Your task to perform on an android device: Open Chrome and go to settings Image 0: 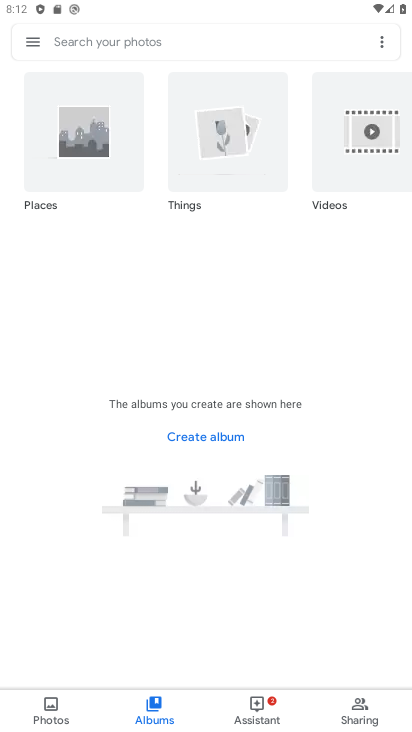
Step 0: press home button
Your task to perform on an android device: Open Chrome and go to settings Image 1: 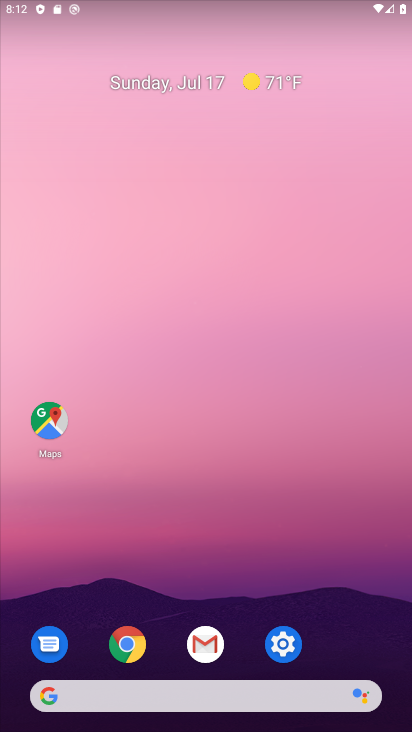
Step 1: click (131, 640)
Your task to perform on an android device: Open Chrome and go to settings Image 2: 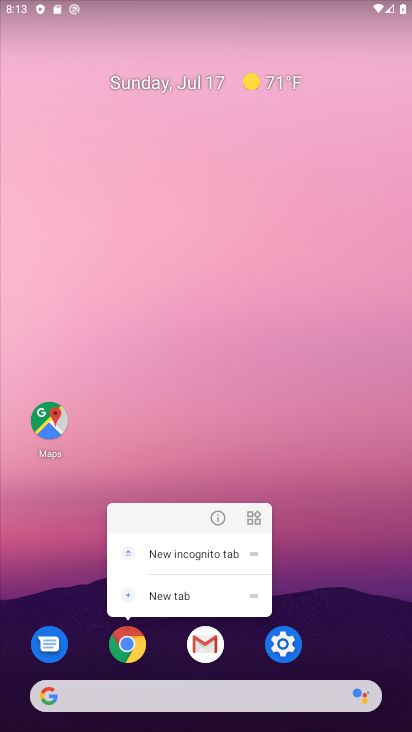
Step 2: click (133, 638)
Your task to perform on an android device: Open Chrome and go to settings Image 3: 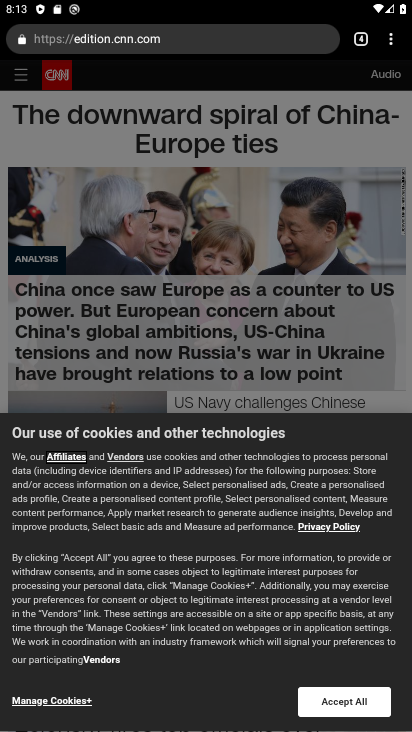
Step 3: click (387, 50)
Your task to perform on an android device: Open Chrome and go to settings Image 4: 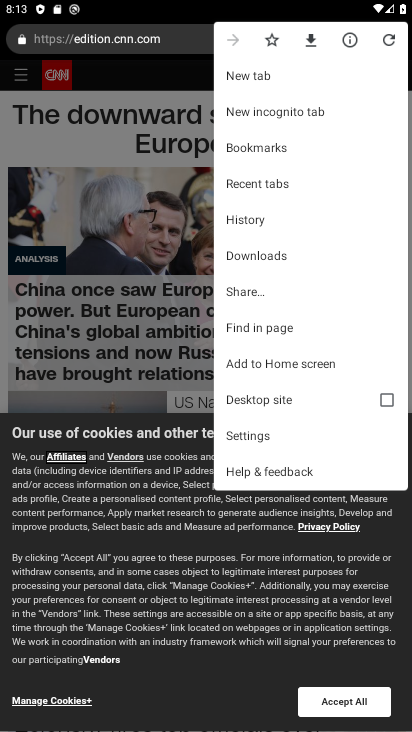
Step 4: click (266, 432)
Your task to perform on an android device: Open Chrome and go to settings Image 5: 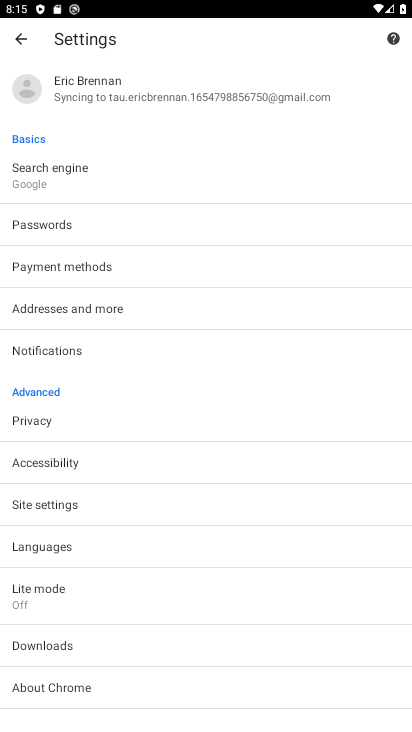
Step 5: task complete